Your task to perform on an android device: open app "Airtel Thanks" (install if not already installed) and enter user name: "acclaimed@inbox.com" and password: "dichotomize" Image 0: 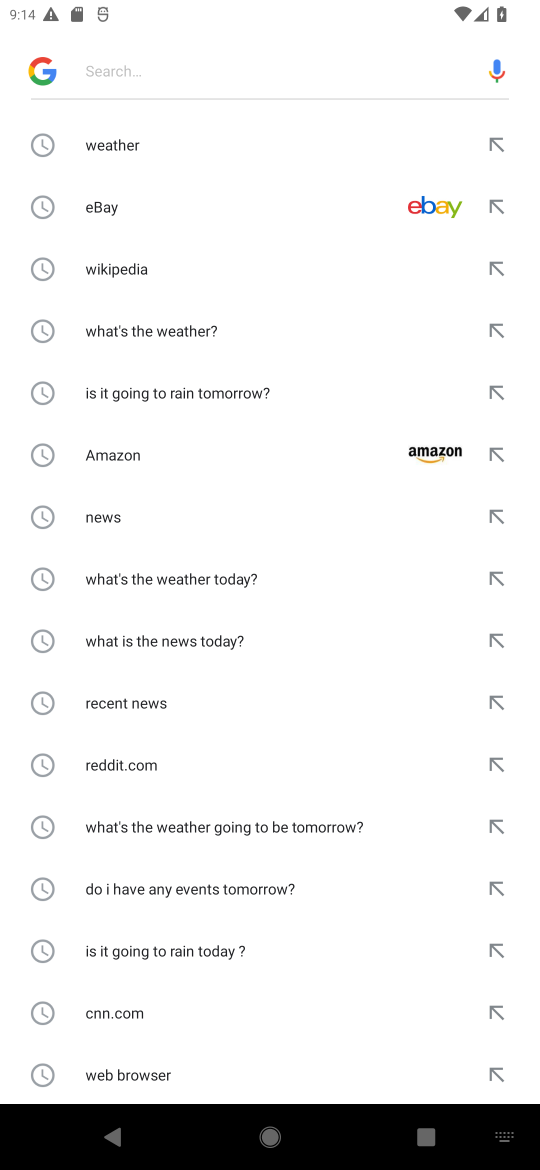
Step 0: press home button
Your task to perform on an android device: open app "Airtel Thanks" (install if not already installed) and enter user name: "acclaimed@inbox.com" and password: "dichotomize" Image 1: 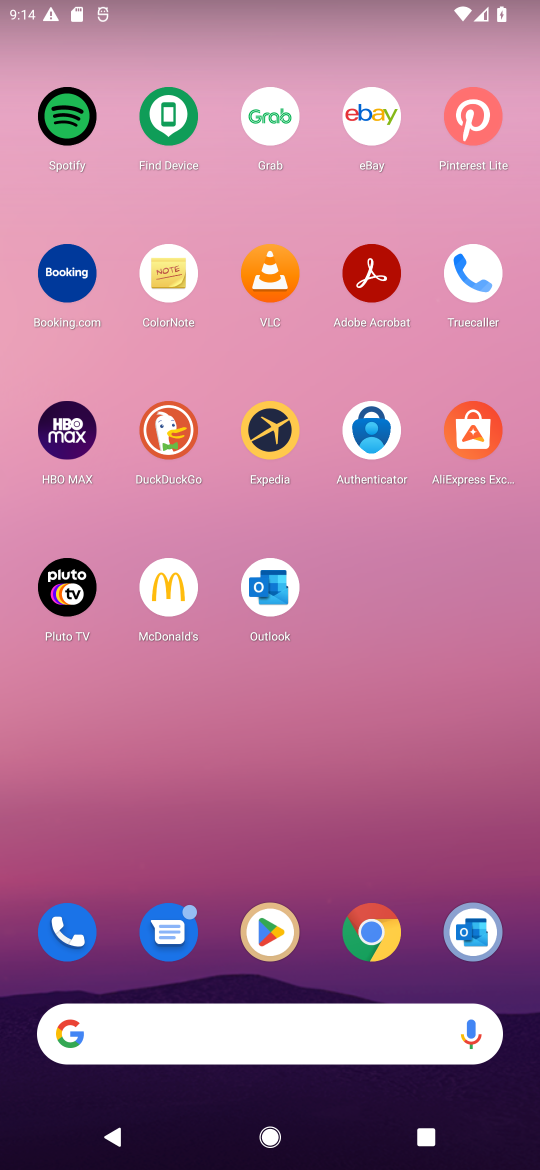
Step 1: click (264, 948)
Your task to perform on an android device: open app "Airtel Thanks" (install if not already installed) and enter user name: "acclaimed@inbox.com" and password: "dichotomize" Image 2: 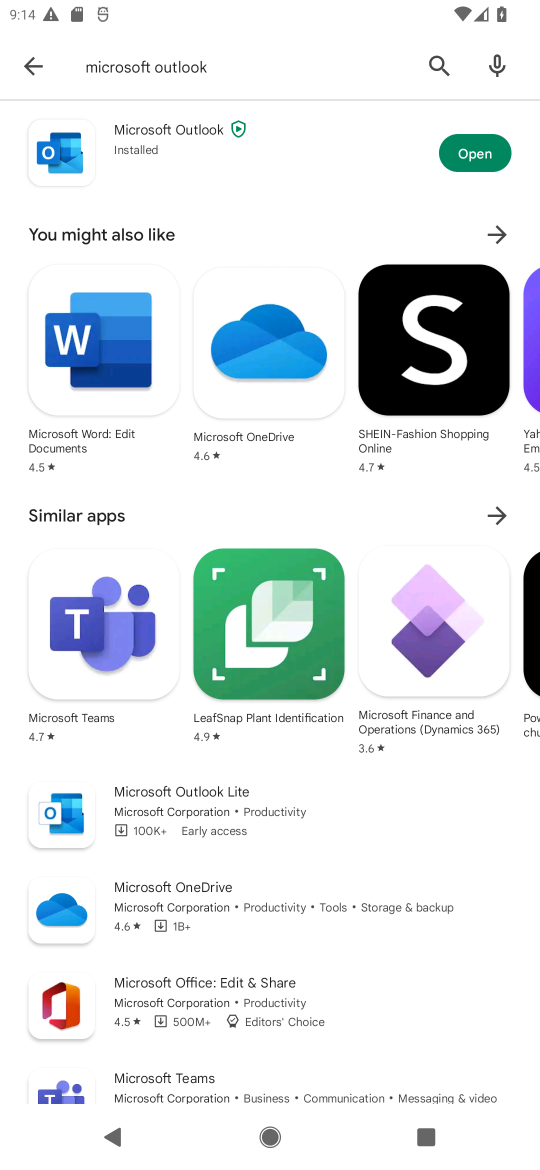
Step 2: click (431, 76)
Your task to perform on an android device: open app "Airtel Thanks" (install if not already installed) and enter user name: "acclaimed@inbox.com" and password: "dichotomize" Image 3: 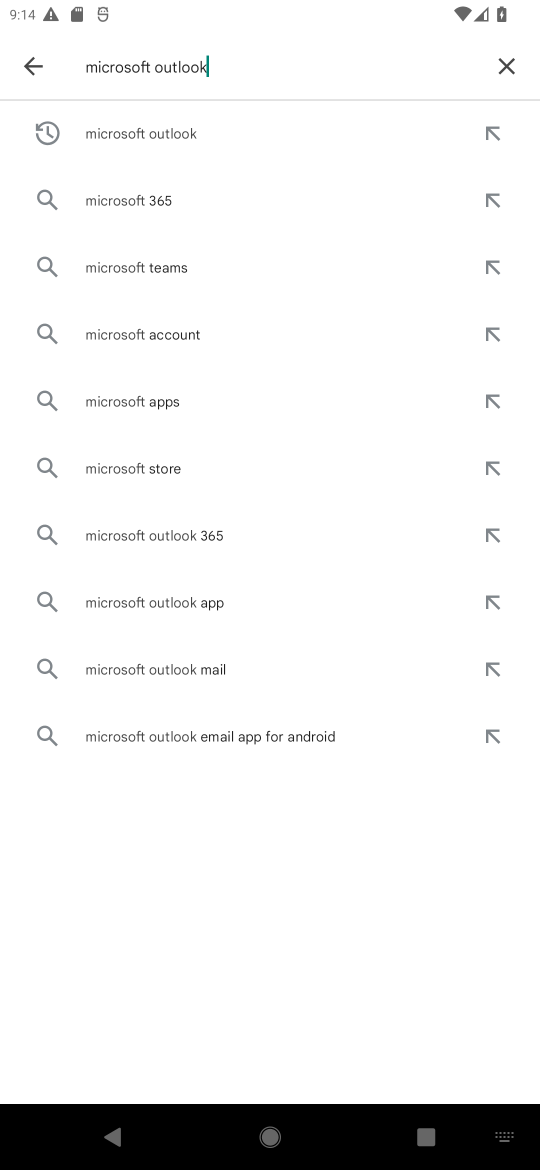
Step 3: click (497, 75)
Your task to perform on an android device: open app "Airtel Thanks" (install if not already installed) and enter user name: "acclaimed@inbox.com" and password: "dichotomize" Image 4: 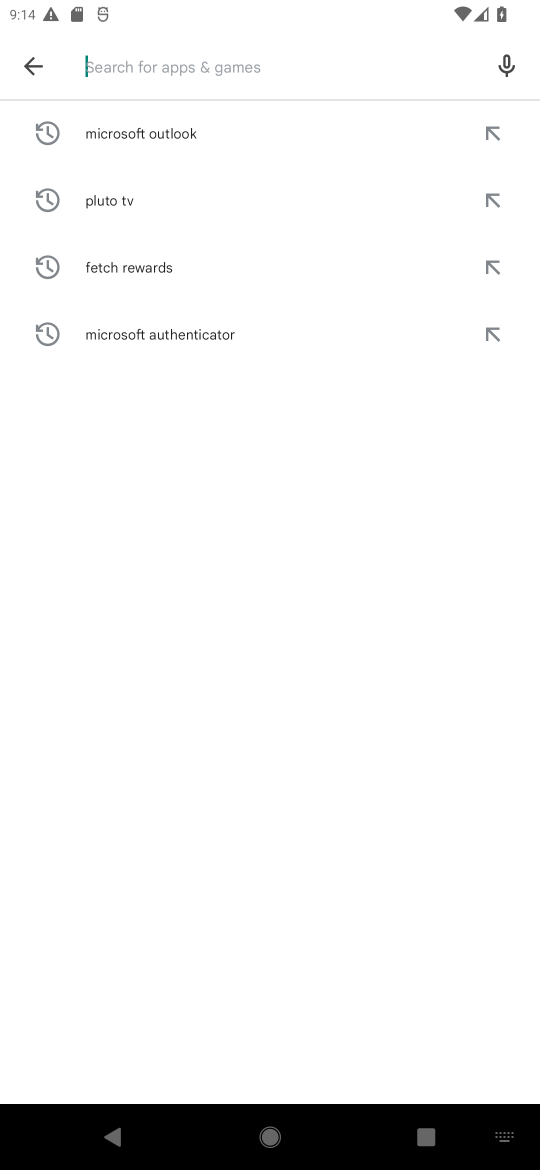
Step 4: type "airtel"
Your task to perform on an android device: open app "Airtel Thanks" (install if not already installed) and enter user name: "acclaimed@inbox.com" and password: "dichotomize" Image 5: 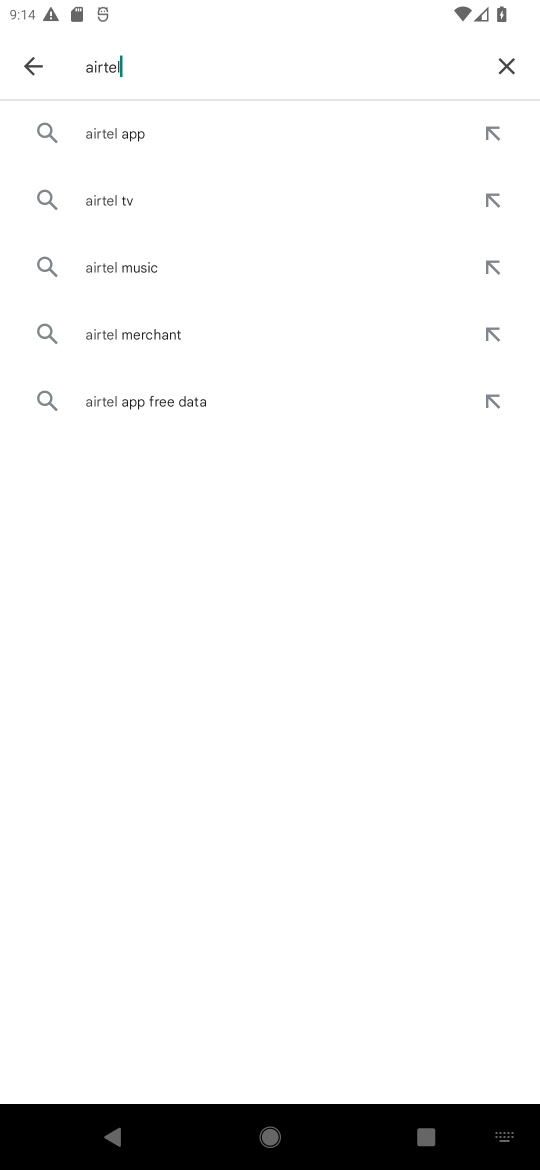
Step 5: click (173, 154)
Your task to perform on an android device: open app "Airtel Thanks" (install if not already installed) and enter user name: "acclaimed@inbox.com" and password: "dichotomize" Image 6: 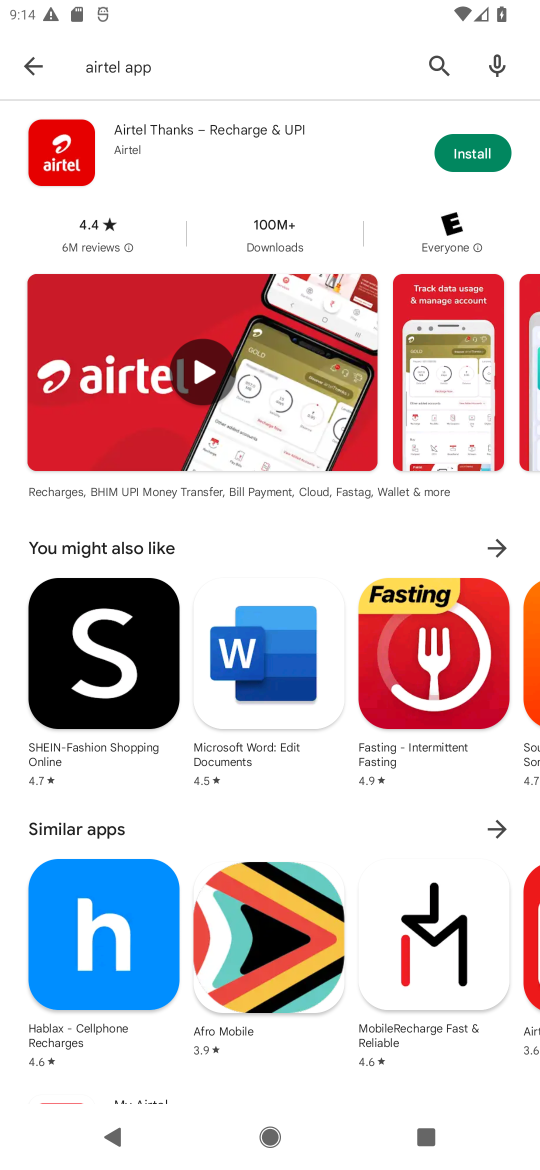
Step 6: click (459, 156)
Your task to perform on an android device: open app "Airtel Thanks" (install if not already installed) and enter user name: "acclaimed@inbox.com" and password: "dichotomize" Image 7: 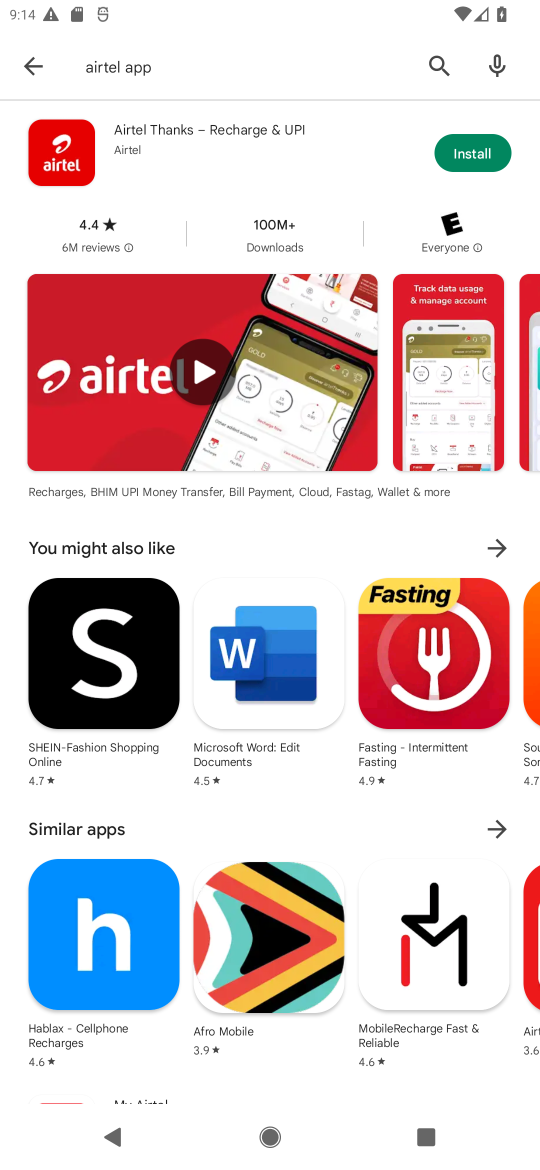
Step 7: task complete